Your task to perform on an android device: open app "Google Play Games" (install if not already installed) Image 0: 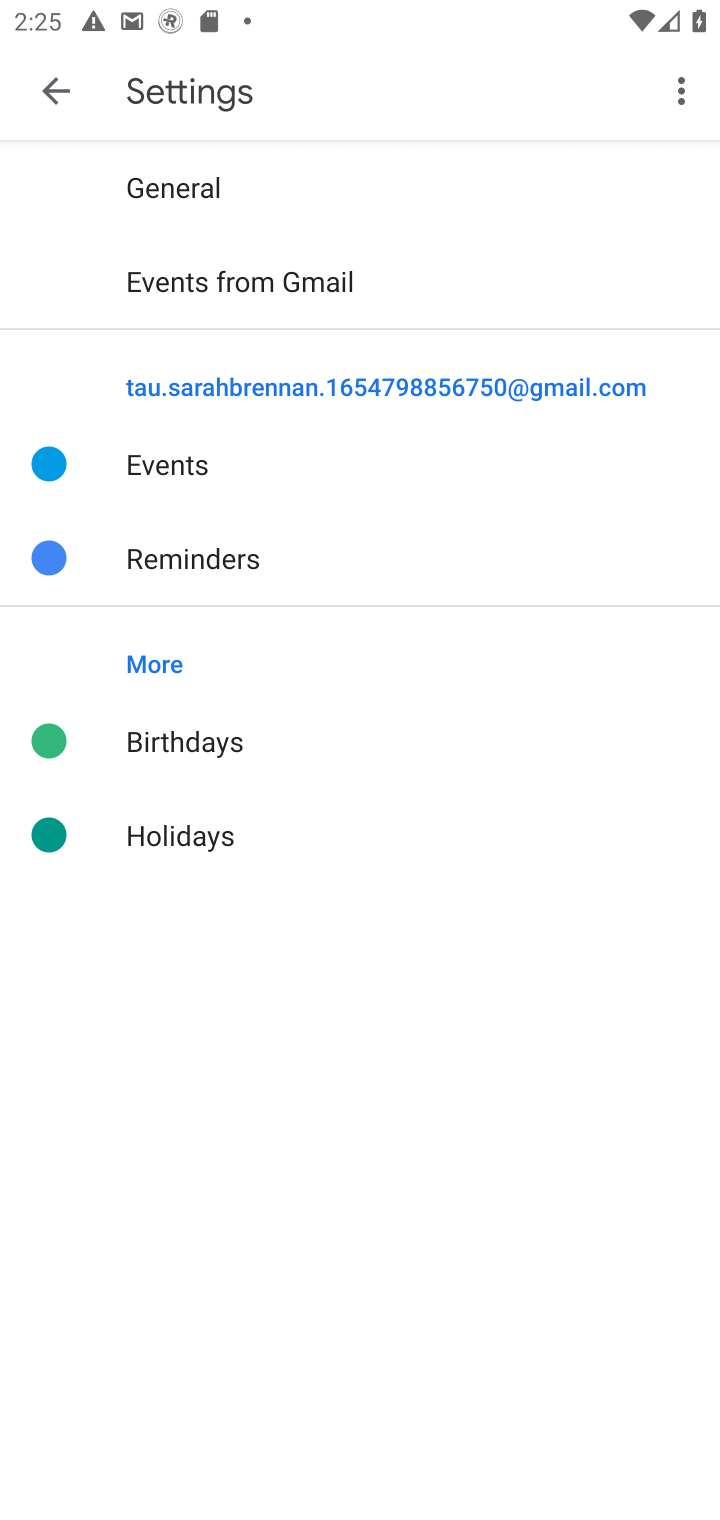
Step 0: press home button
Your task to perform on an android device: open app "Google Play Games" (install if not already installed) Image 1: 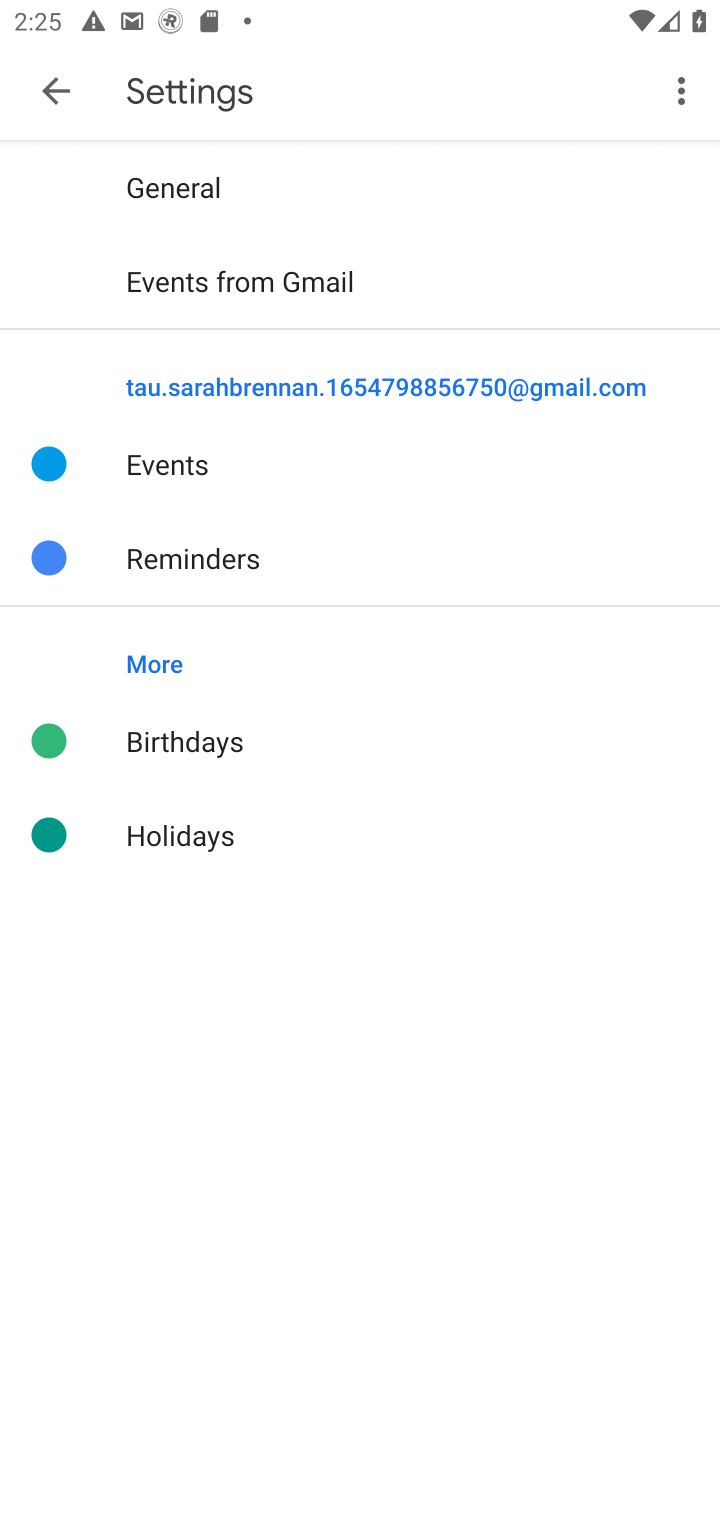
Step 1: press enter
Your task to perform on an android device: open app "Google Play Games" (install if not already installed) Image 2: 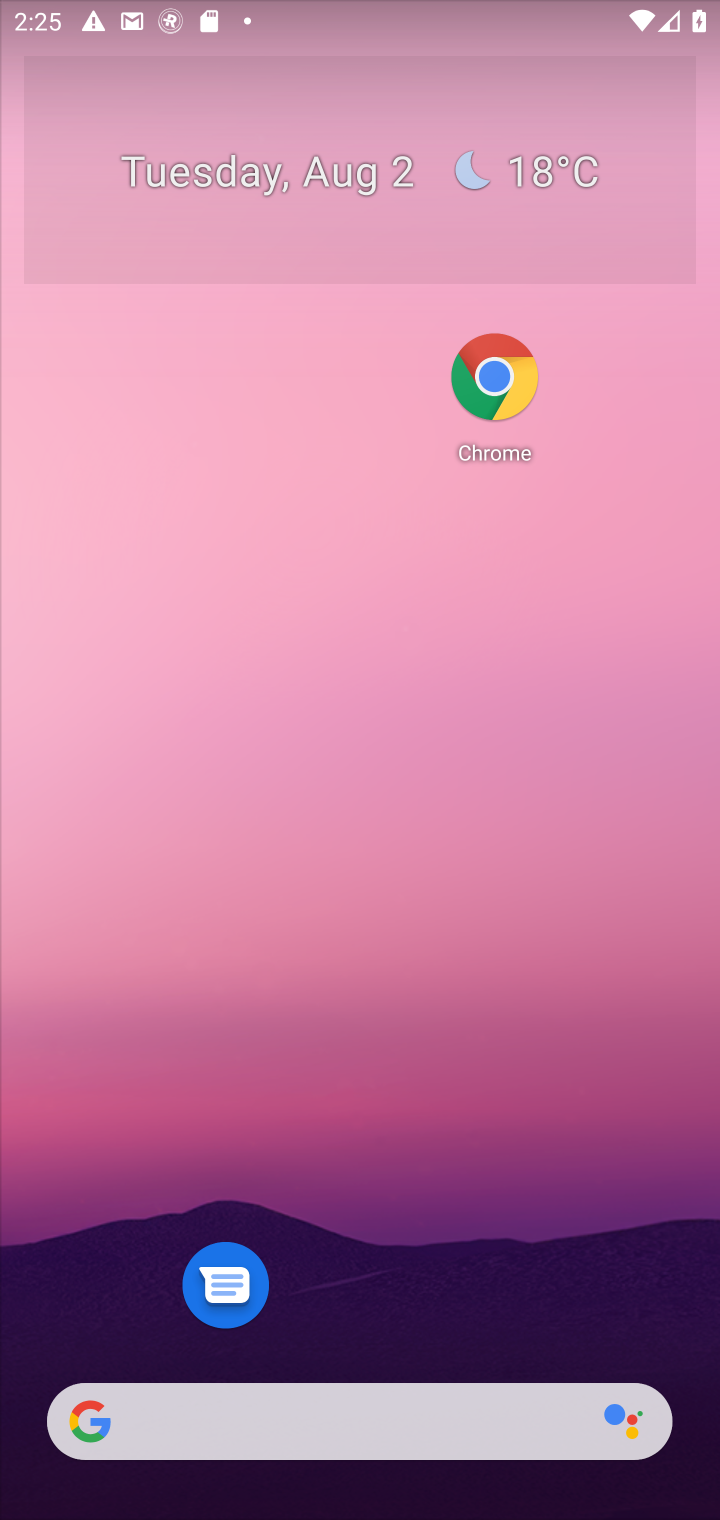
Step 2: press home button
Your task to perform on an android device: open app "Google Play Games" (install if not already installed) Image 3: 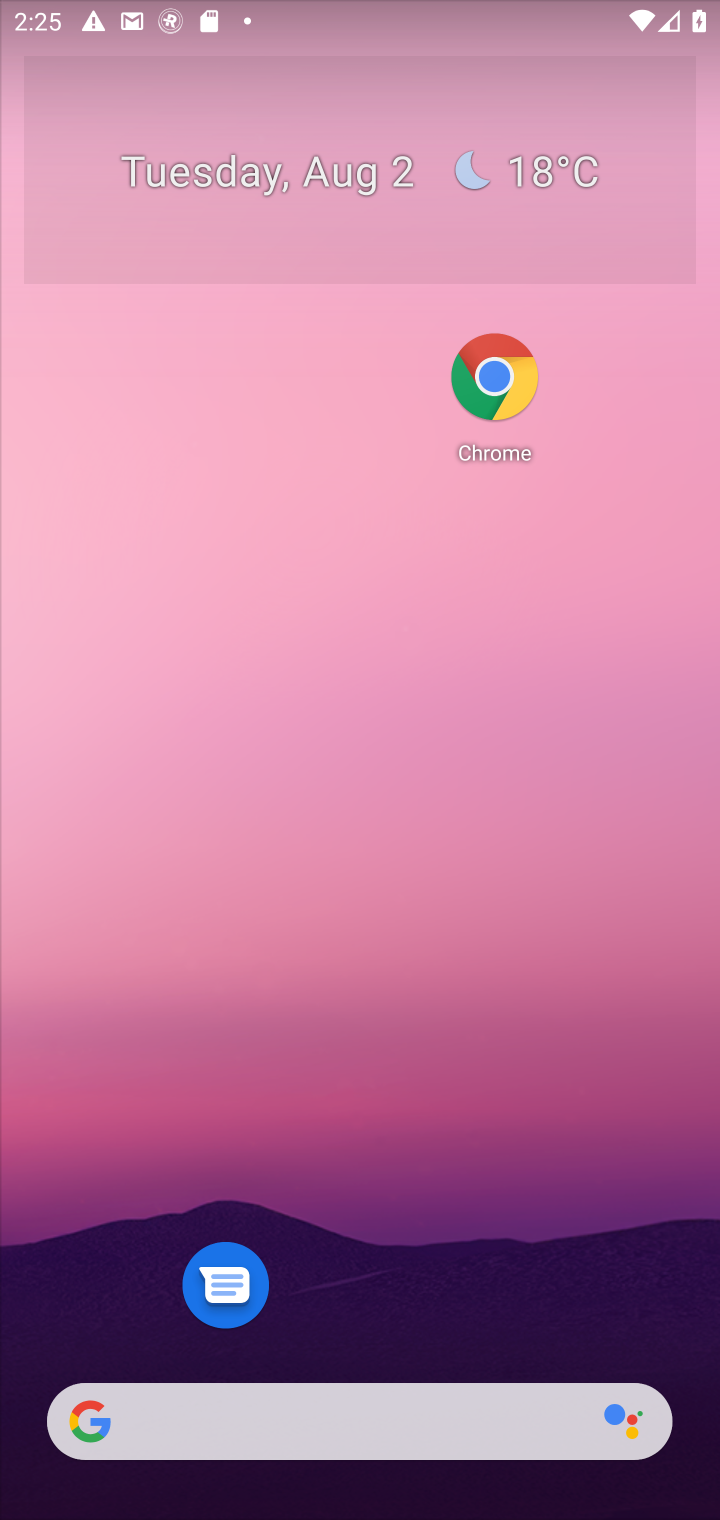
Step 3: press home button
Your task to perform on an android device: open app "Google Play Games" (install if not already installed) Image 4: 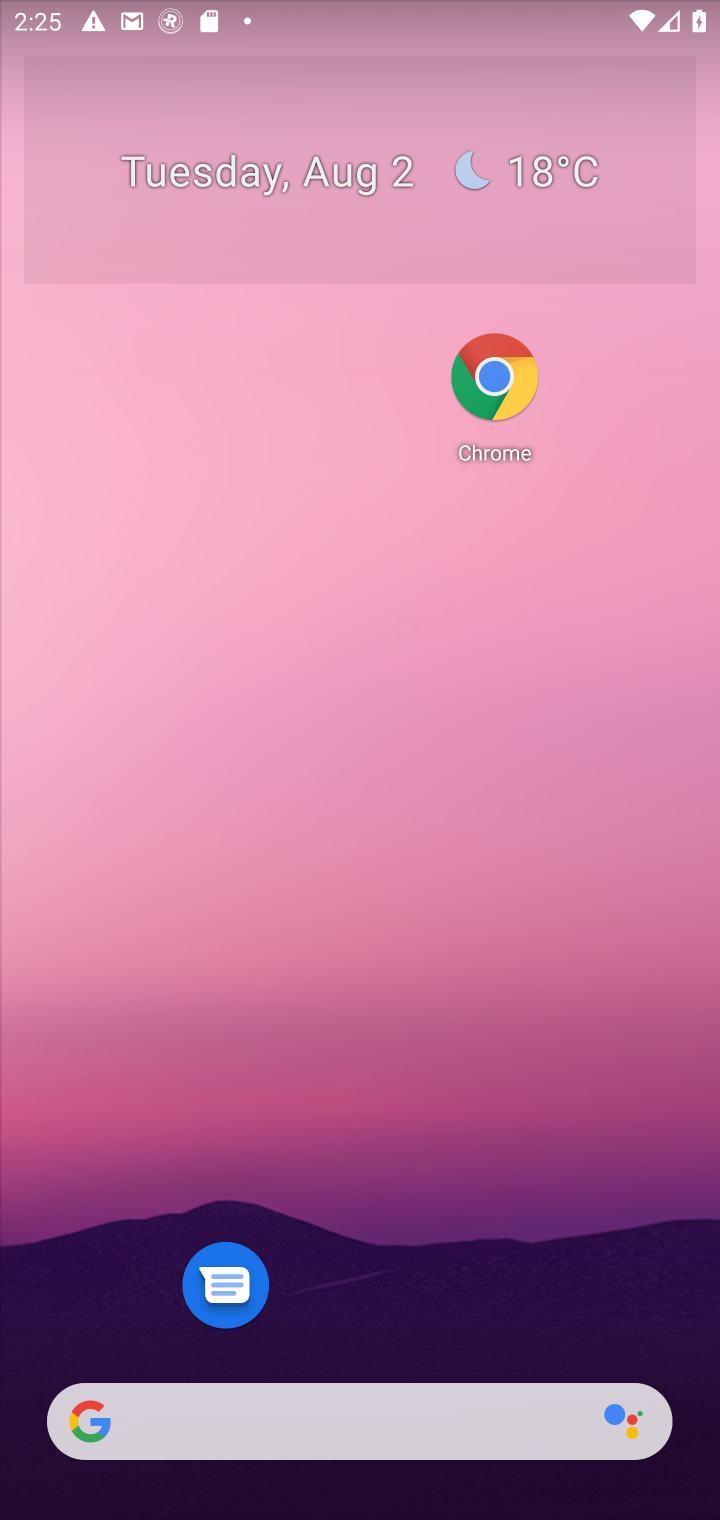
Step 4: press home button
Your task to perform on an android device: open app "Google Play Games" (install if not already installed) Image 5: 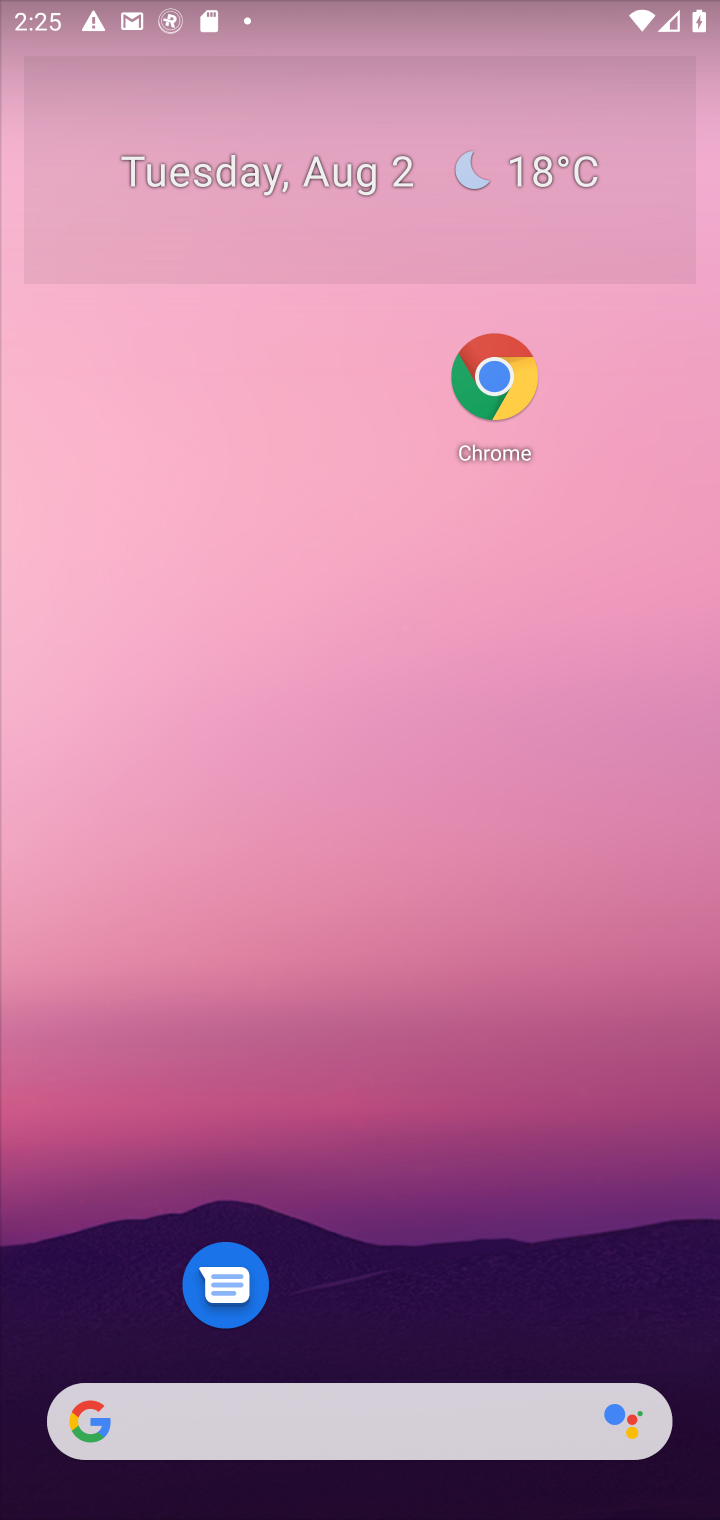
Step 5: press home button
Your task to perform on an android device: open app "Google Play Games" (install if not already installed) Image 6: 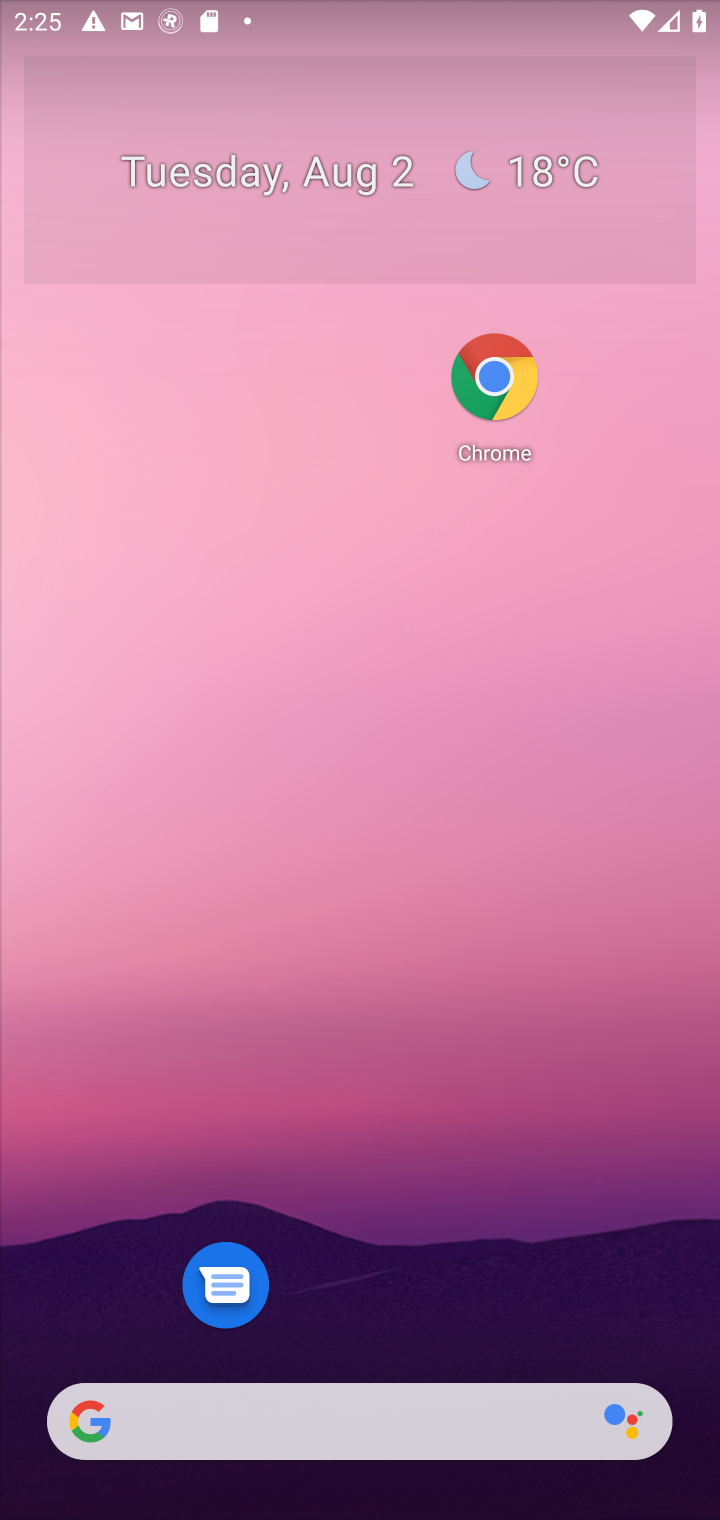
Step 6: drag from (444, 1328) to (457, 42)
Your task to perform on an android device: open app "Google Play Games" (install if not already installed) Image 7: 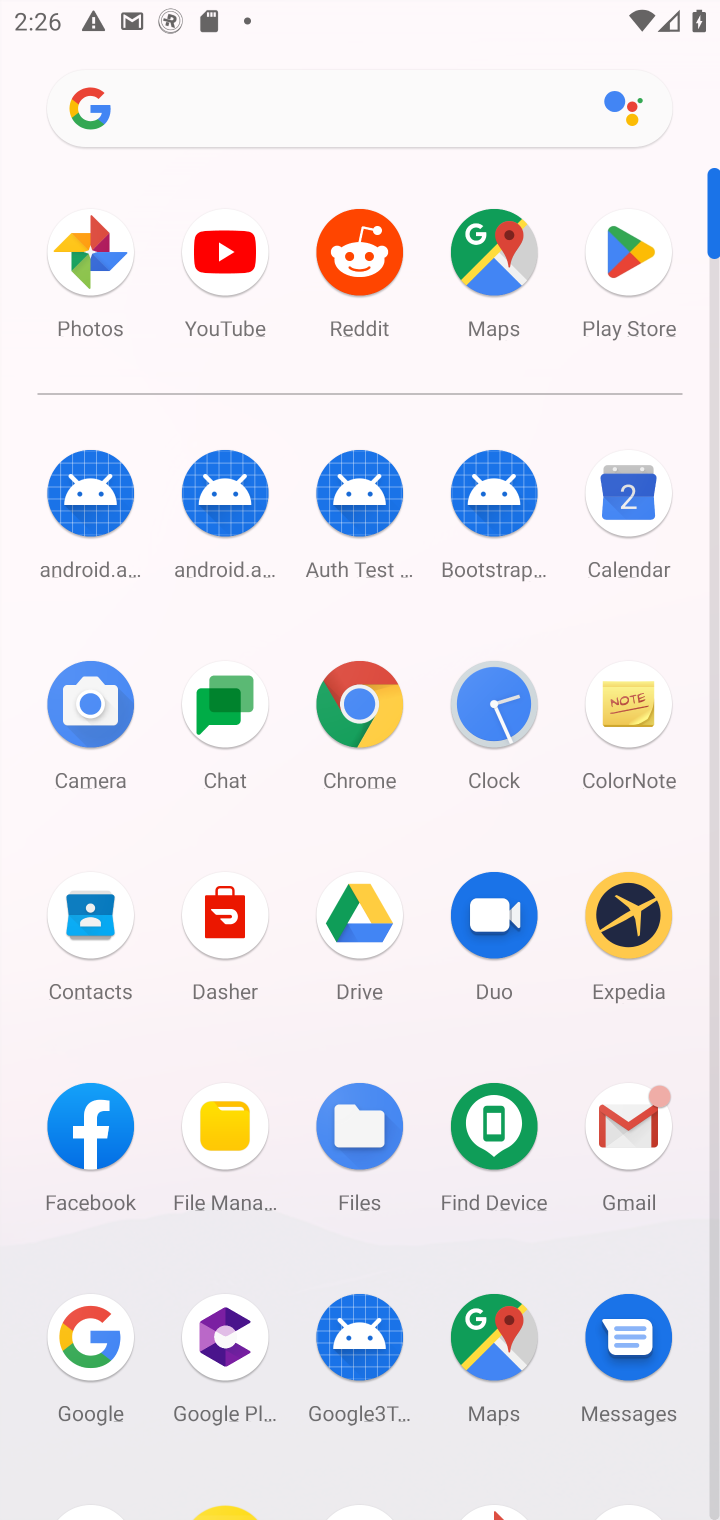
Step 7: click (656, 257)
Your task to perform on an android device: open app "Google Play Games" (install if not already installed) Image 8: 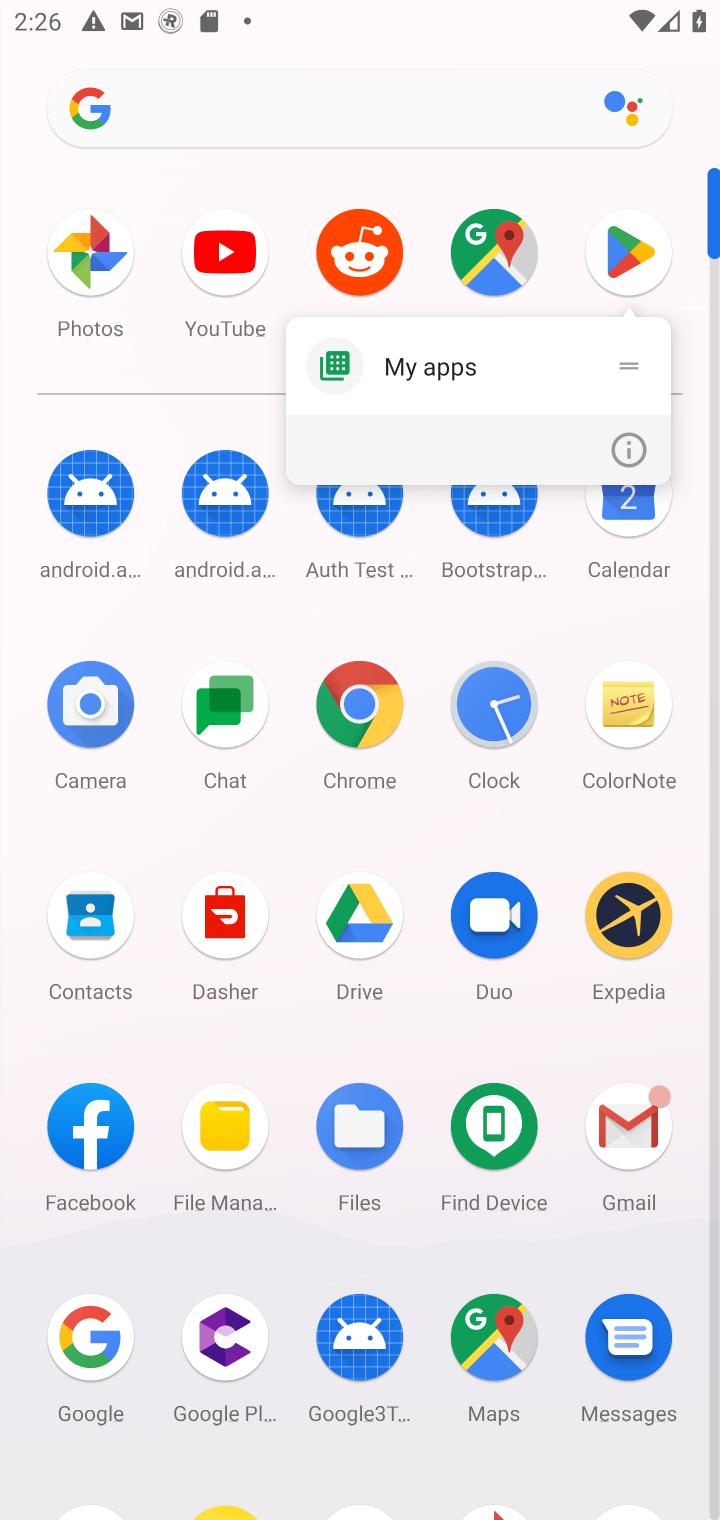
Step 8: click (659, 286)
Your task to perform on an android device: open app "Google Play Games" (install if not already installed) Image 9: 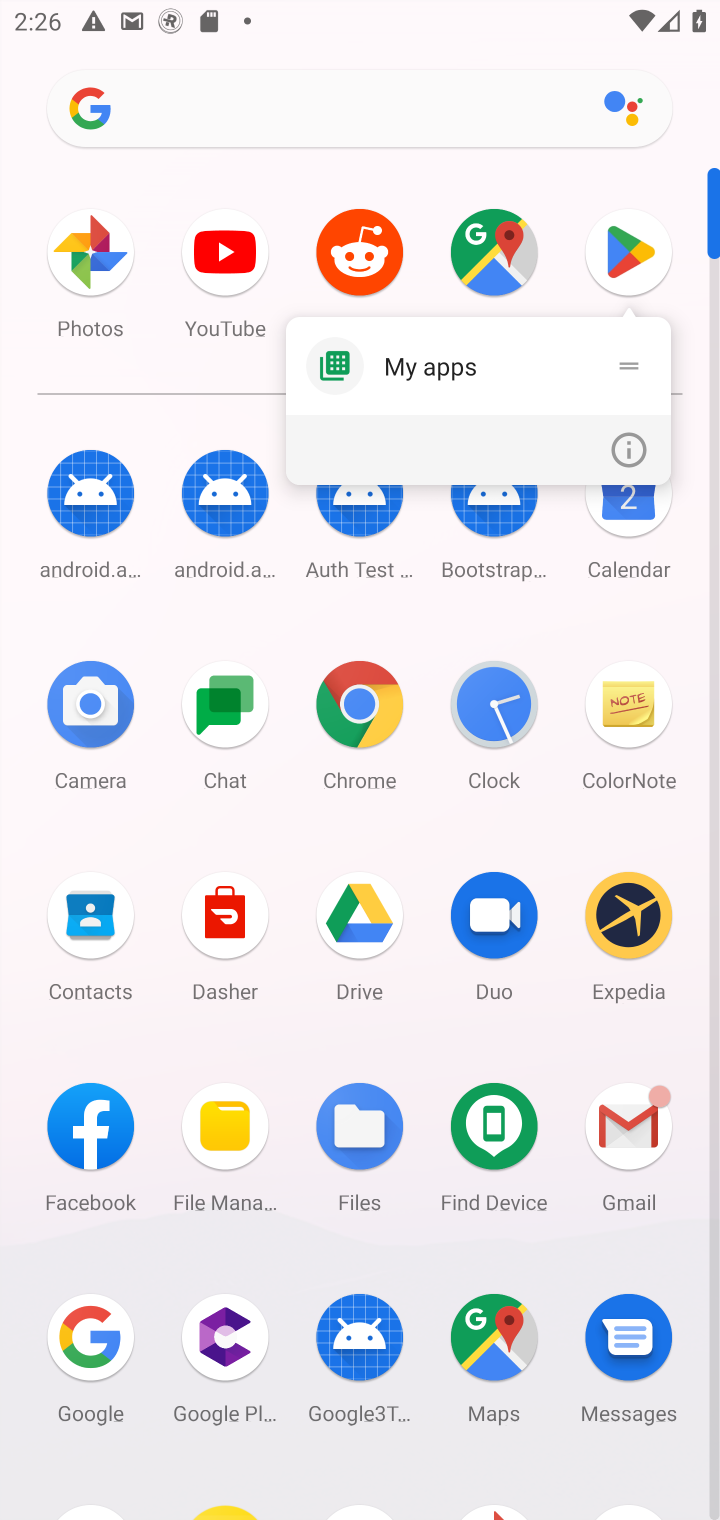
Step 9: click (659, 286)
Your task to perform on an android device: open app "Google Play Games" (install if not already installed) Image 10: 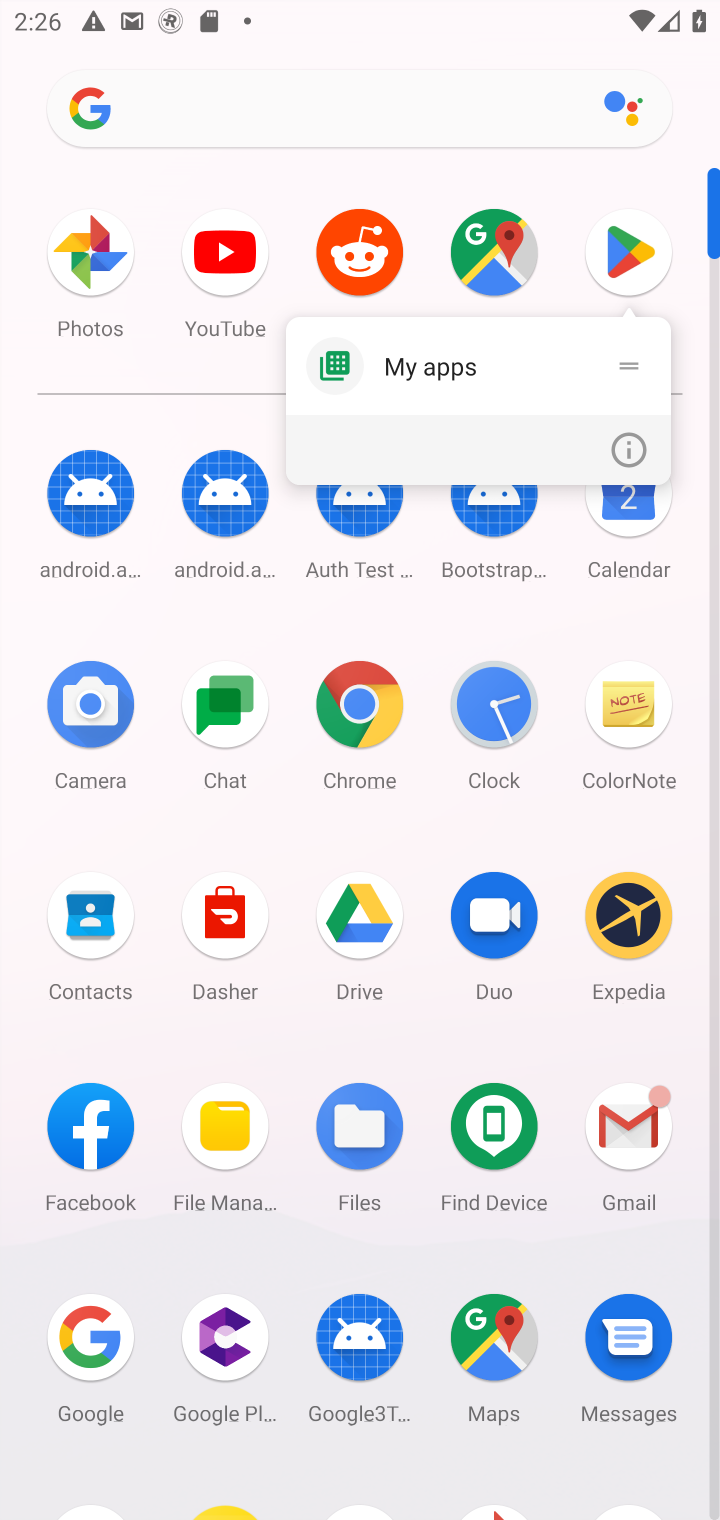
Step 10: click (659, 286)
Your task to perform on an android device: open app "Google Play Games" (install if not already installed) Image 11: 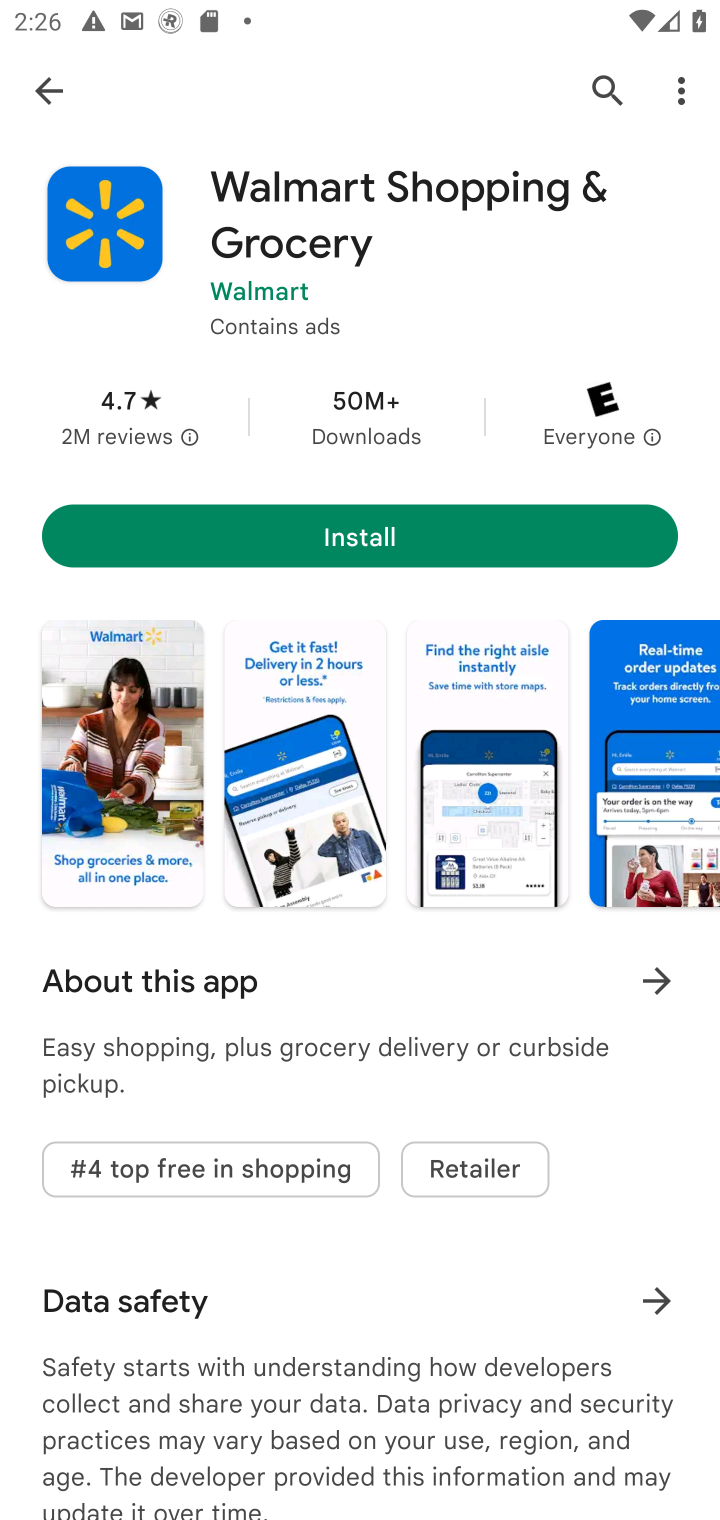
Step 11: click (588, 76)
Your task to perform on an android device: open app "Google Play Games" (install if not already installed) Image 12: 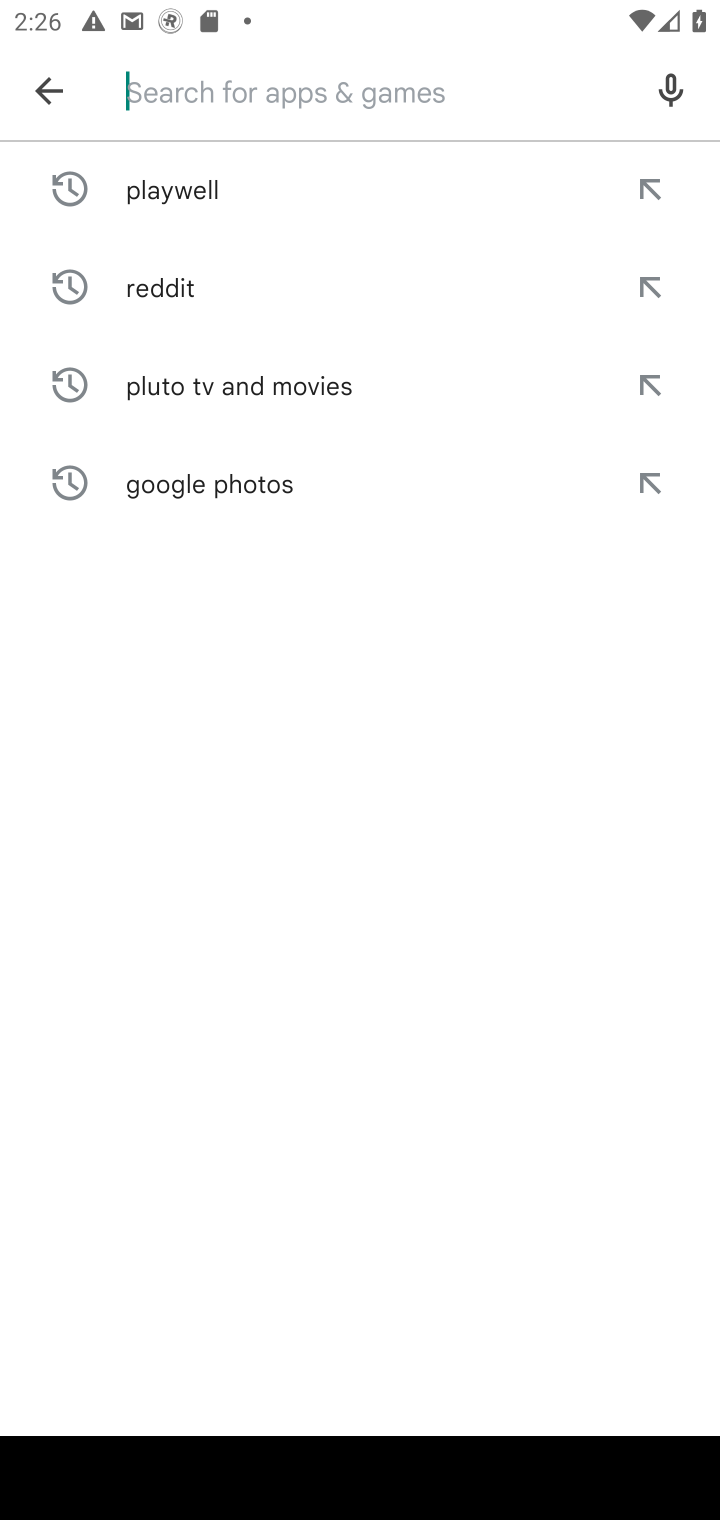
Step 12: click (575, 111)
Your task to perform on an android device: open app "Google Play Games" (install if not already installed) Image 13: 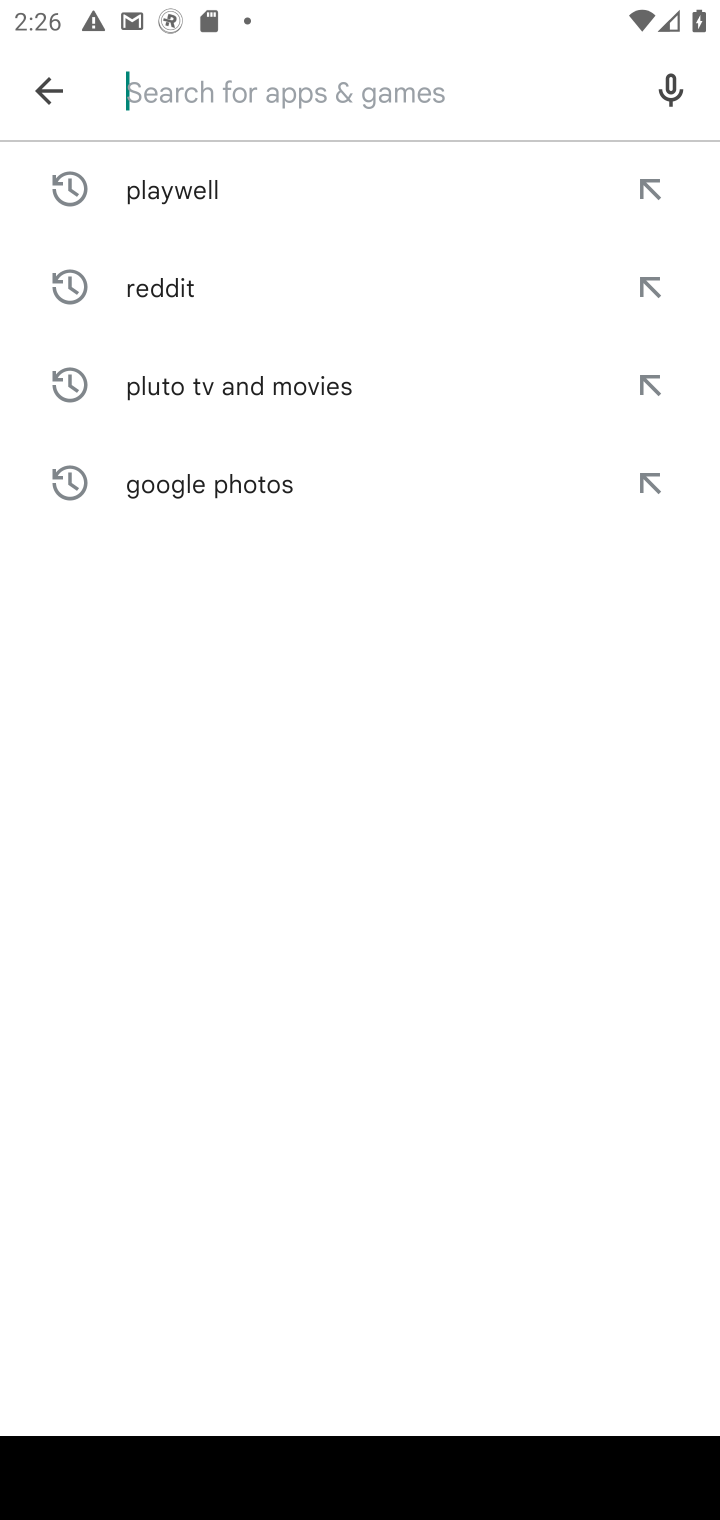
Step 13: type "Google Play Games"
Your task to perform on an android device: open app "Google Play Games" (install if not already installed) Image 14: 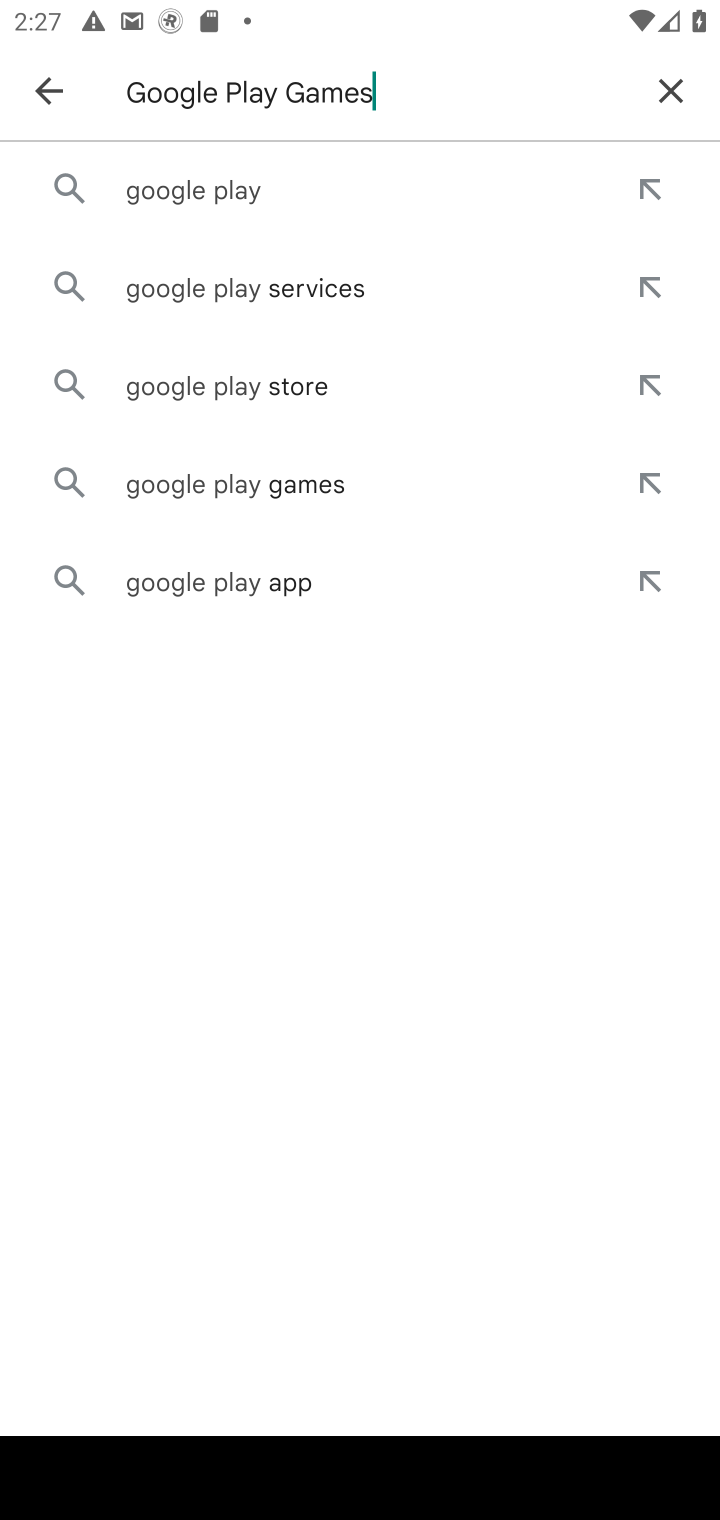
Step 14: type ""
Your task to perform on an android device: open app "Google Play Games" (install if not already installed) Image 15: 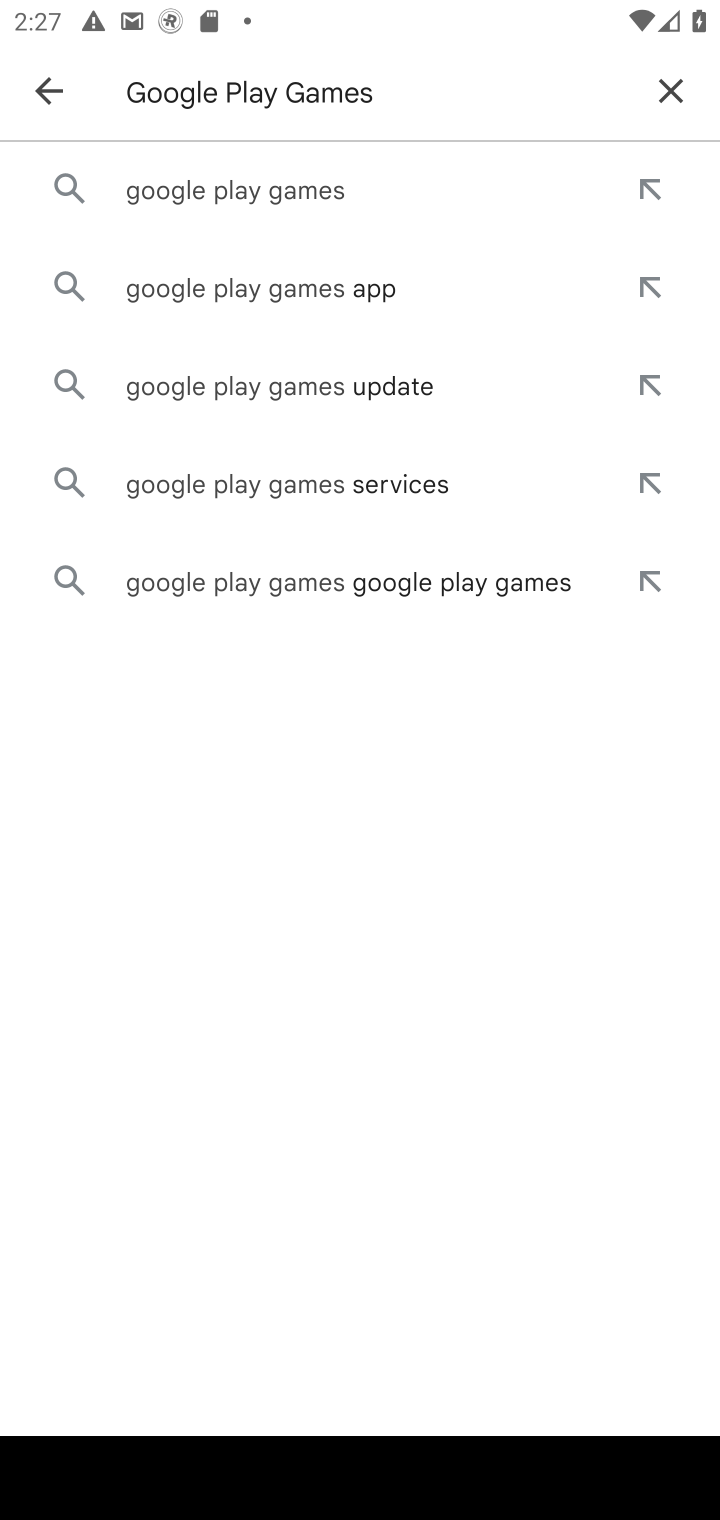
Step 15: click (310, 195)
Your task to perform on an android device: open app "Google Play Games" (install if not already installed) Image 16: 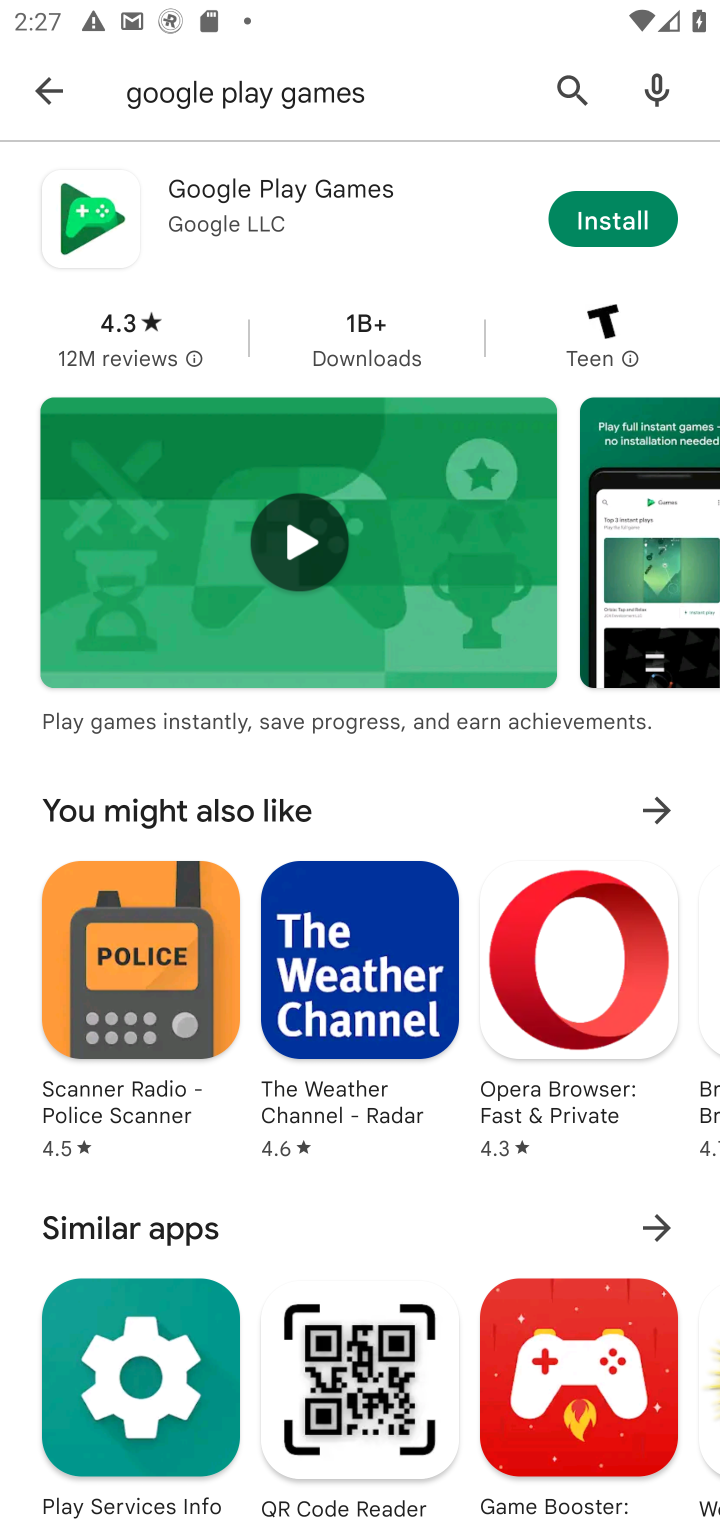
Step 16: task complete